Your task to perform on an android device: Go to CNN.com Image 0: 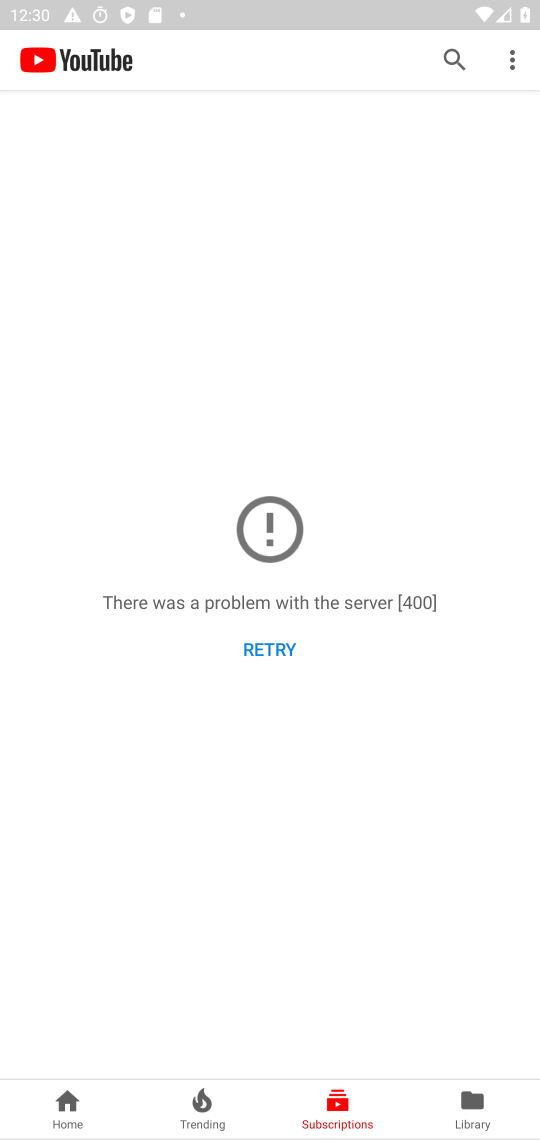
Step 0: press home button
Your task to perform on an android device: Go to CNN.com Image 1: 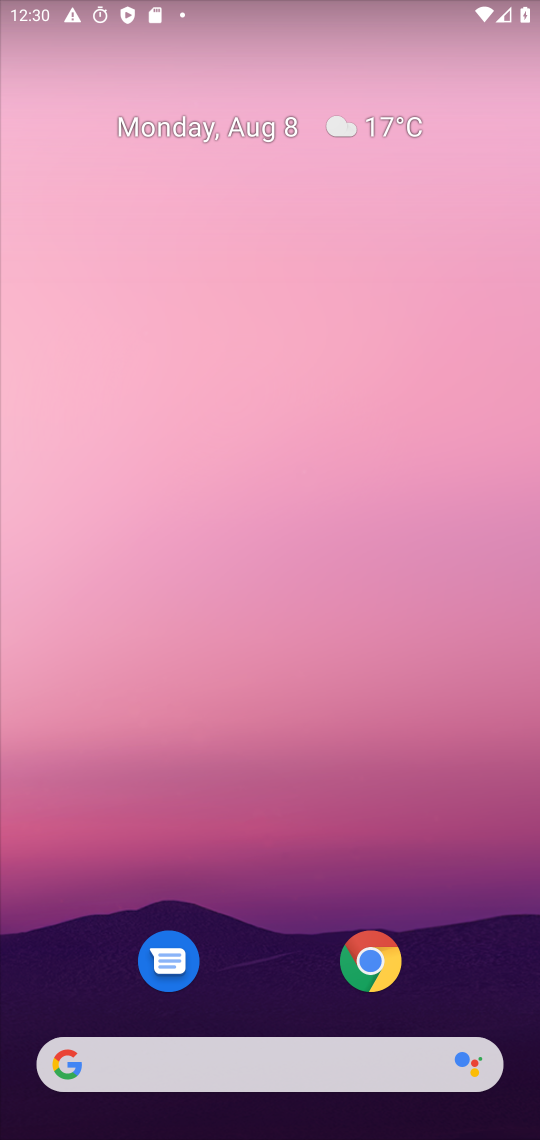
Step 1: drag from (285, 1058) to (132, 122)
Your task to perform on an android device: Go to CNN.com Image 2: 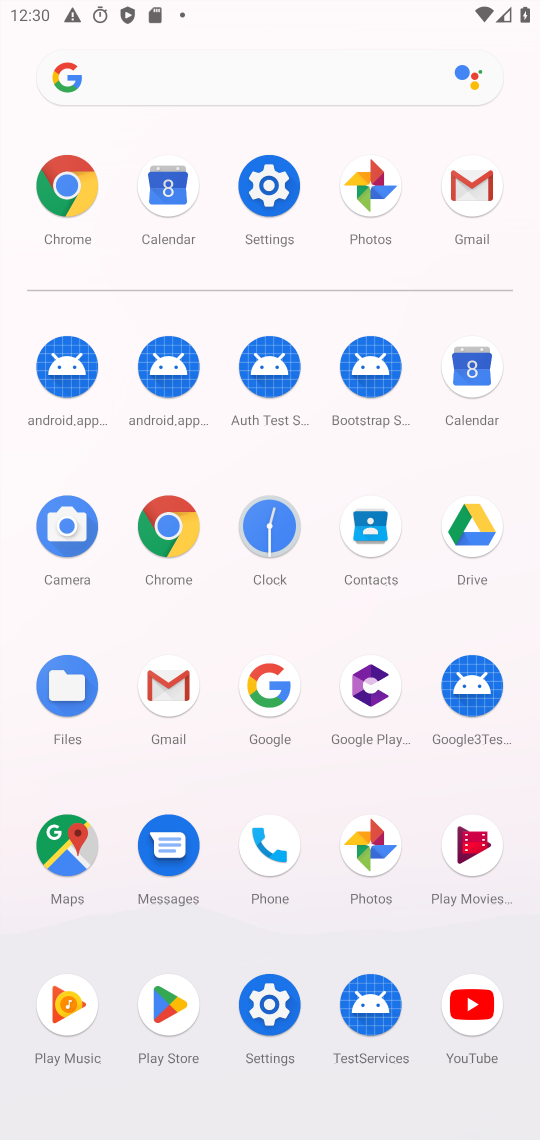
Step 2: click (177, 539)
Your task to perform on an android device: Go to CNN.com Image 3: 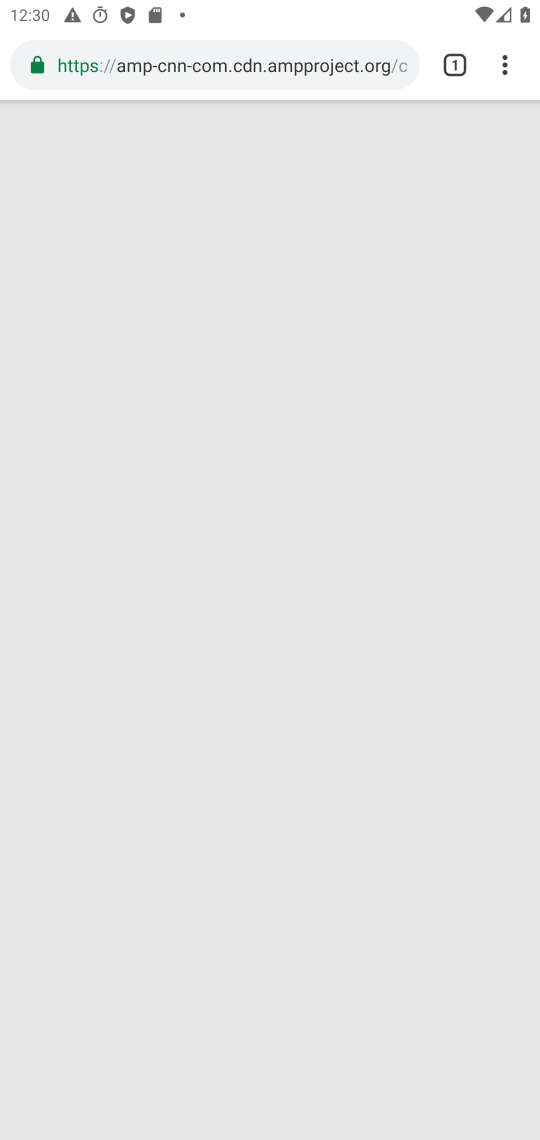
Step 3: click (355, 69)
Your task to perform on an android device: Go to CNN.com Image 4: 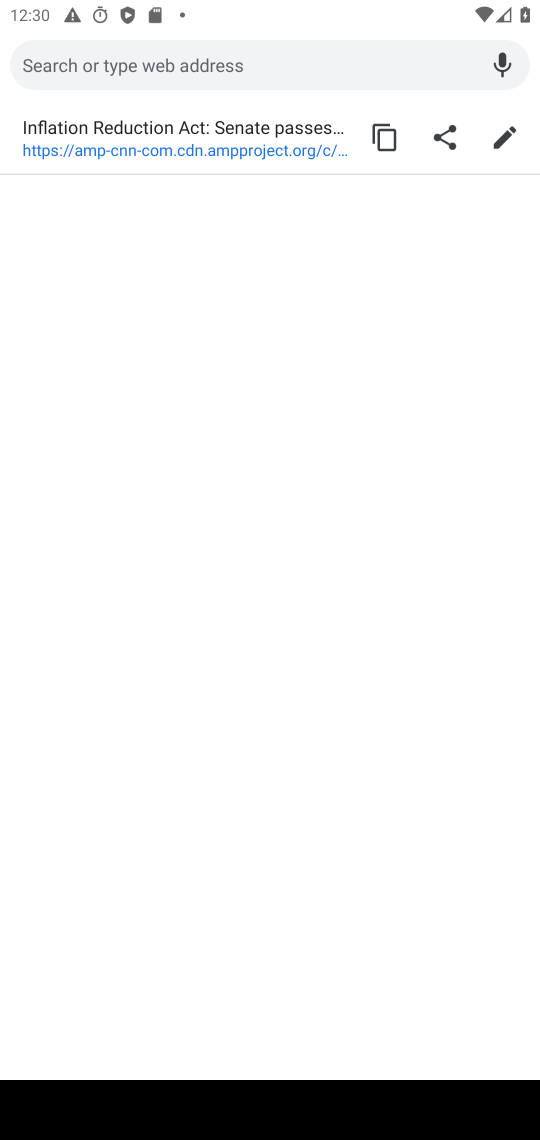
Step 4: type "cnn.com"
Your task to perform on an android device: Go to CNN.com Image 5: 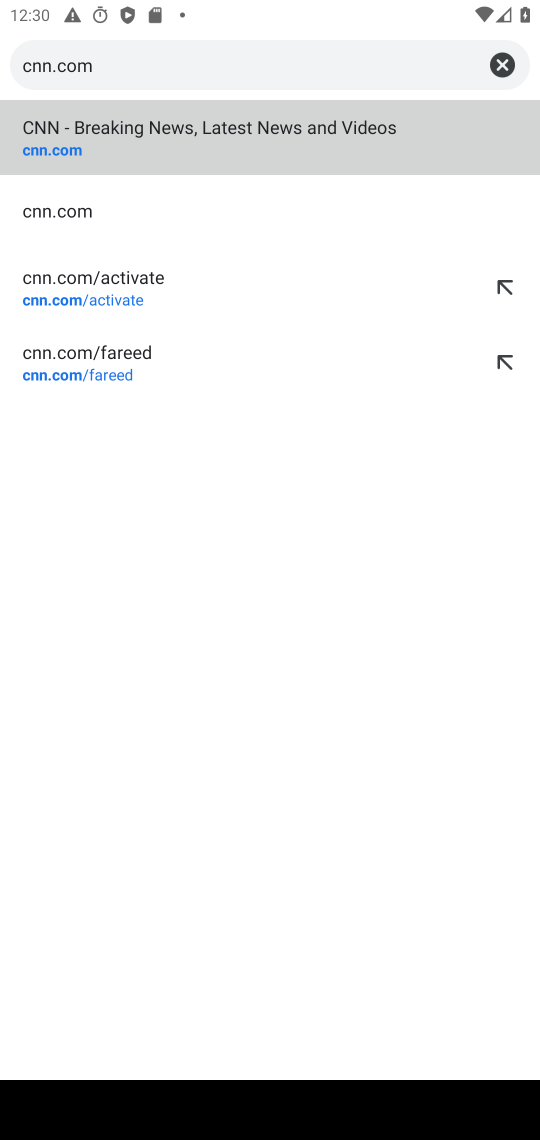
Step 5: click (184, 146)
Your task to perform on an android device: Go to CNN.com Image 6: 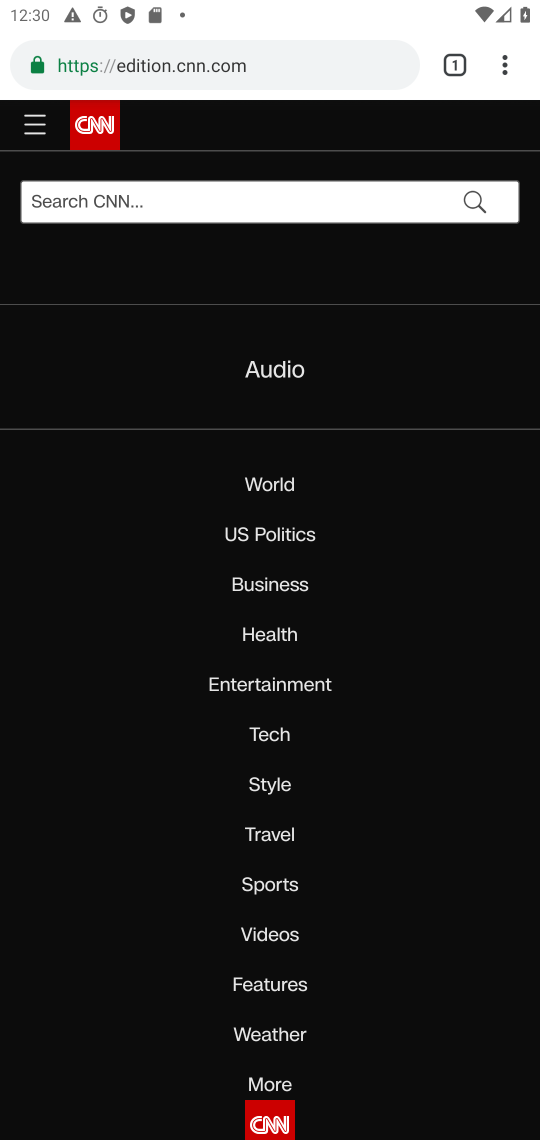
Step 6: task complete